Your task to perform on an android device: toggle wifi Image 0: 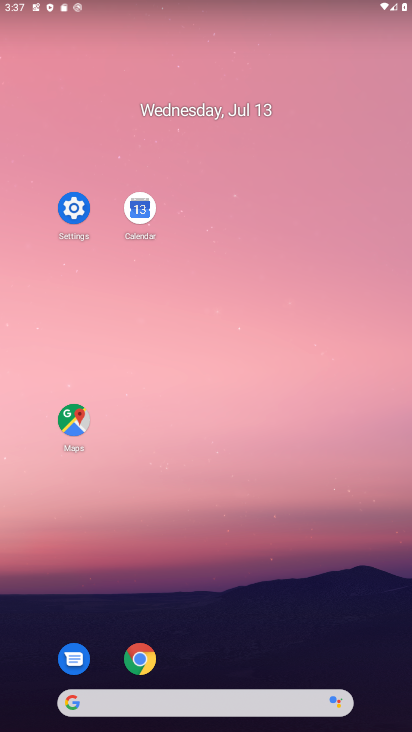
Step 0: click (82, 188)
Your task to perform on an android device: toggle wifi Image 1: 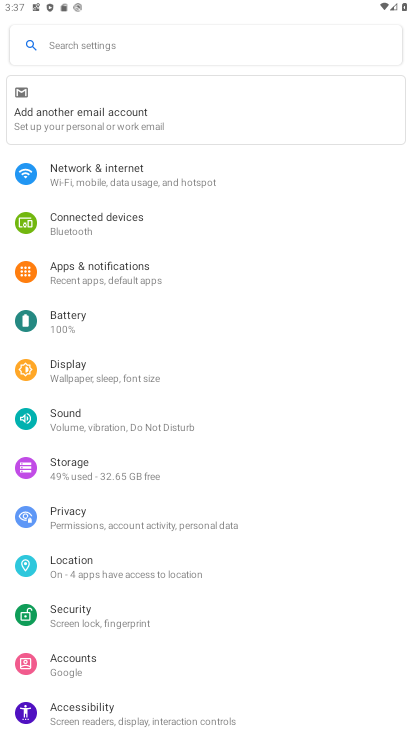
Step 1: click (213, 156)
Your task to perform on an android device: toggle wifi Image 2: 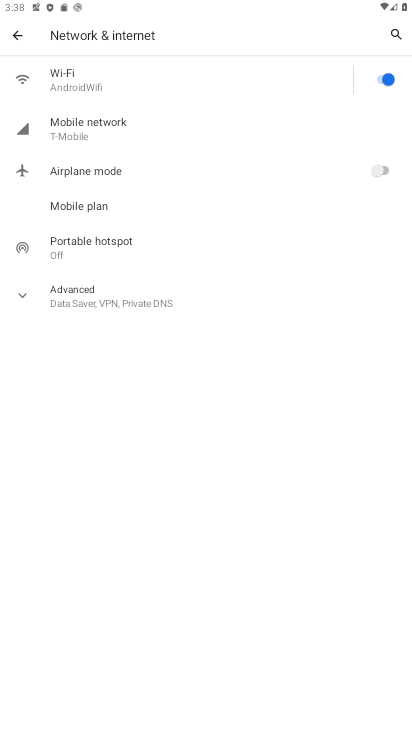
Step 2: click (391, 73)
Your task to perform on an android device: toggle wifi Image 3: 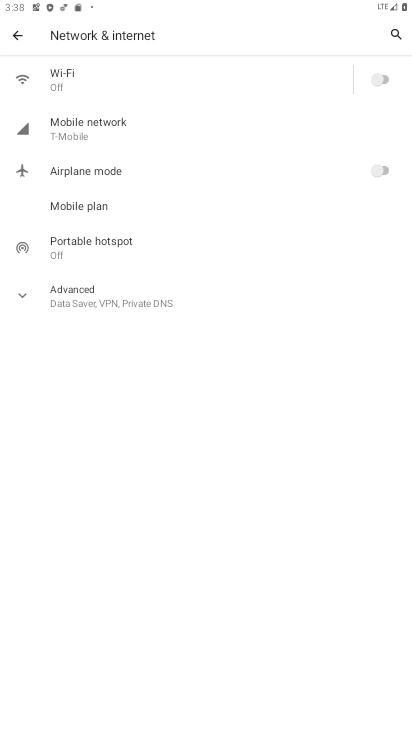
Step 3: task complete